Your task to perform on an android device: open a new tab in the chrome app Image 0: 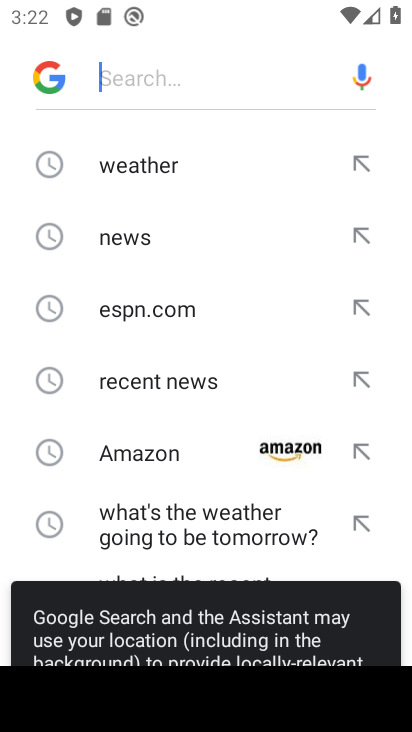
Step 0: press back button
Your task to perform on an android device: open a new tab in the chrome app Image 1: 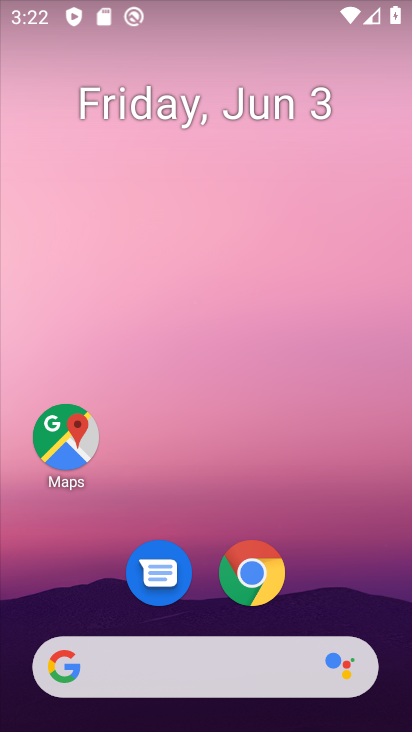
Step 1: click (241, 573)
Your task to perform on an android device: open a new tab in the chrome app Image 2: 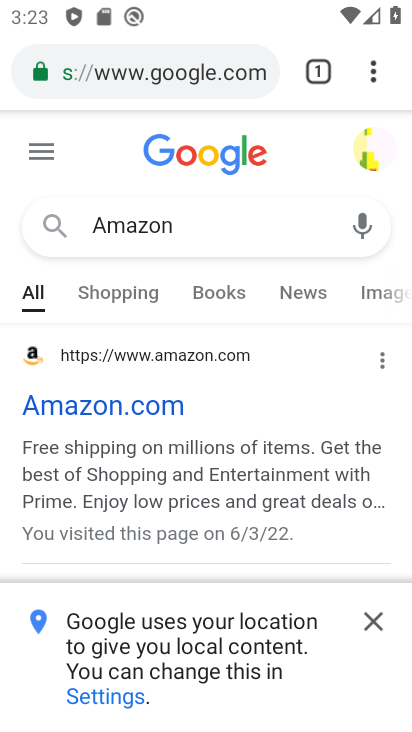
Step 2: click (371, 72)
Your task to perform on an android device: open a new tab in the chrome app Image 3: 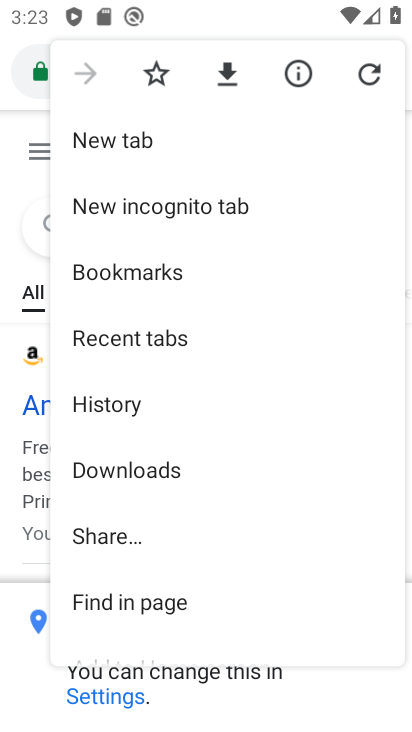
Step 3: click (100, 134)
Your task to perform on an android device: open a new tab in the chrome app Image 4: 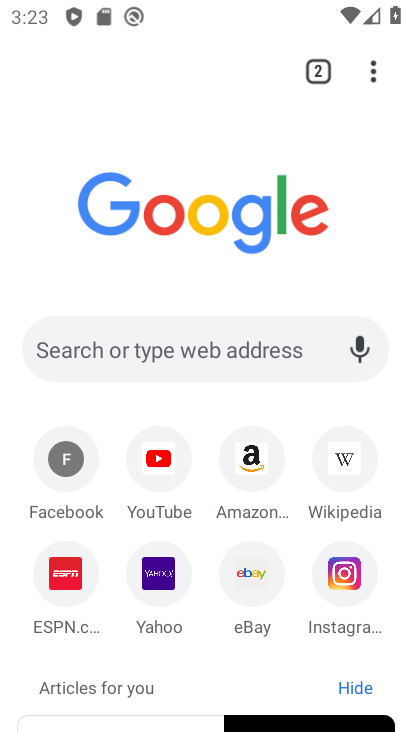
Step 4: task complete